Your task to perform on an android device: Open Google Maps and go to "Timeline" Image 0: 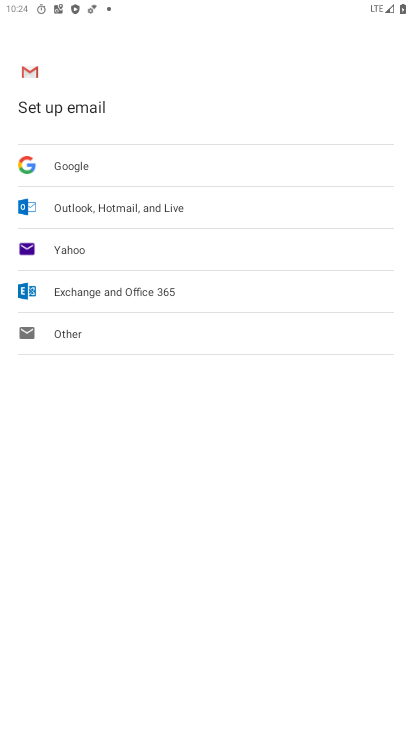
Step 0: press home button
Your task to perform on an android device: Open Google Maps and go to "Timeline" Image 1: 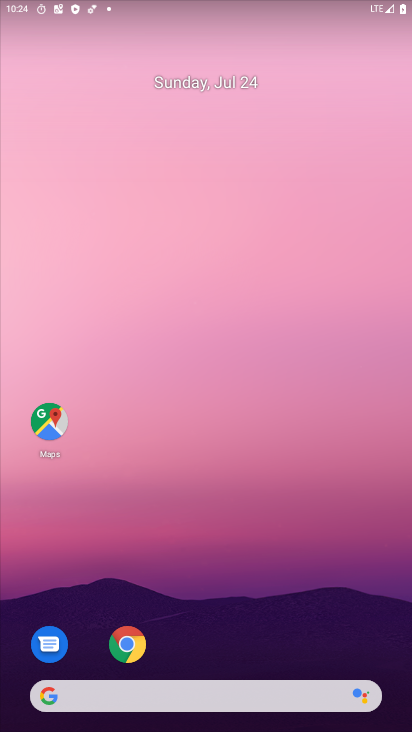
Step 1: click (46, 428)
Your task to perform on an android device: Open Google Maps and go to "Timeline" Image 2: 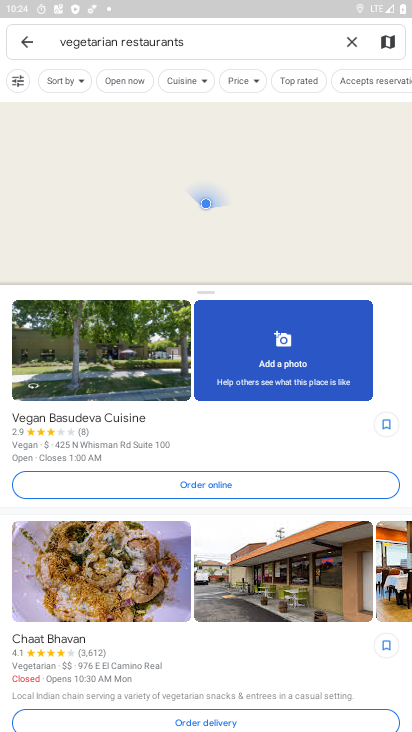
Step 2: click (29, 42)
Your task to perform on an android device: Open Google Maps and go to "Timeline" Image 3: 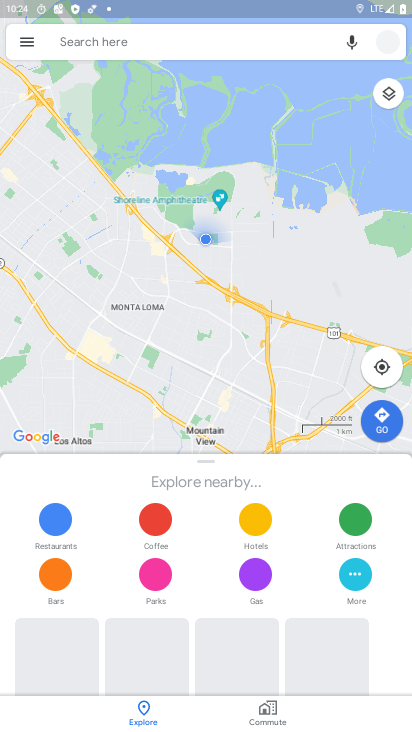
Step 3: click (29, 42)
Your task to perform on an android device: Open Google Maps and go to "Timeline" Image 4: 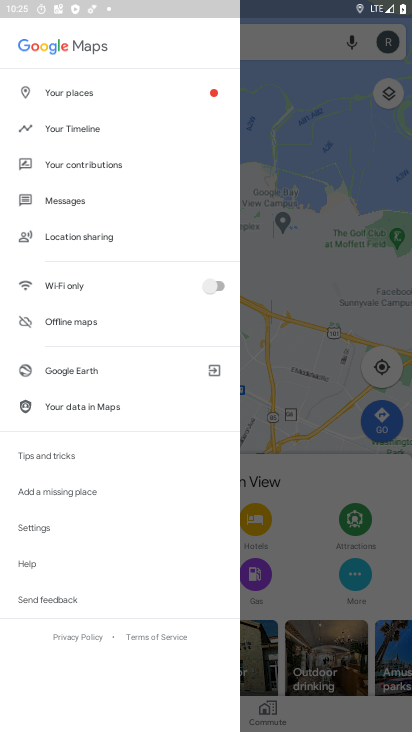
Step 4: click (82, 131)
Your task to perform on an android device: Open Google Maps and go to "Timeline" Image 5: 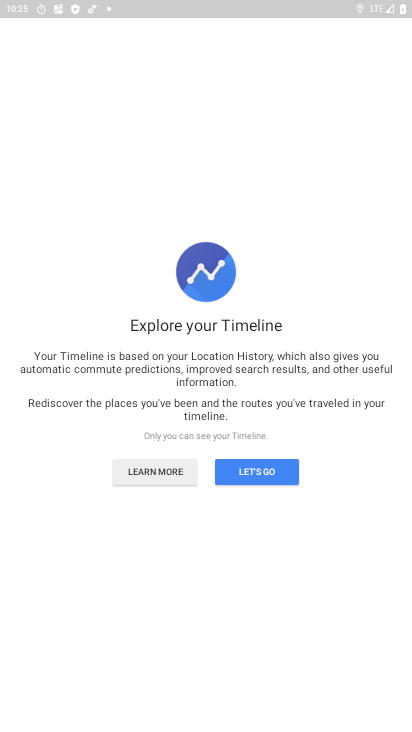
Step 5: click (290, 470)
Your task to perform on an android device: Open Google Maps and go to "Timeline" Image 6: 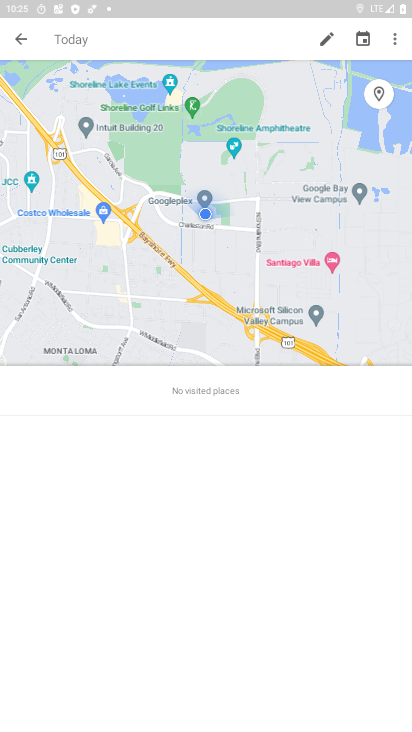
Step 6: task complete